Your task to perform on an android device: open app "Roku - Official Remote Control" (install if not already installed) Image 0: 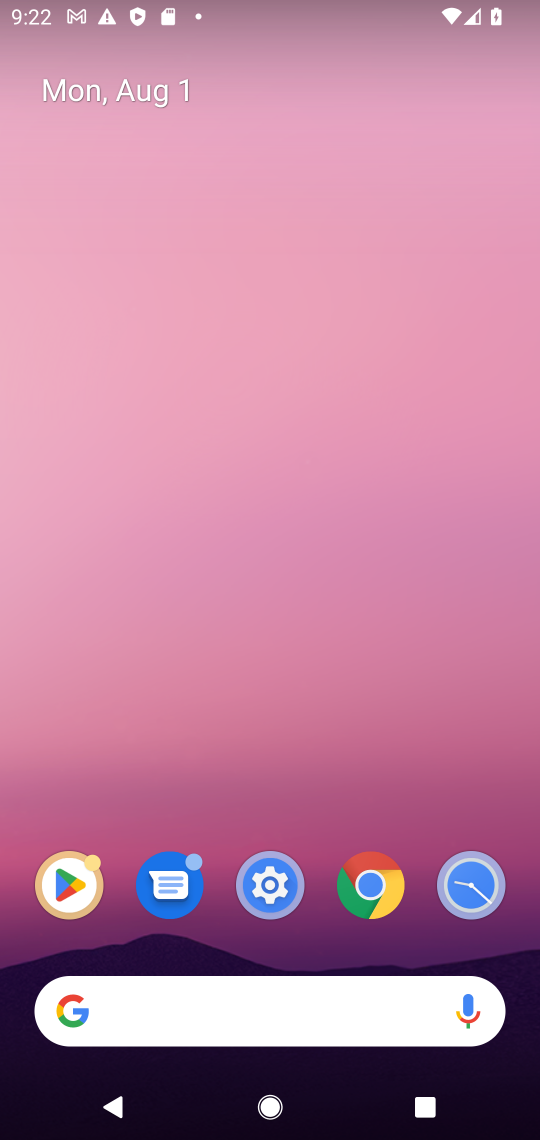
Step 0: drag from (336, 1057) to (316, 301)
Your task to perform on an android device: open app "Roku - Official Remote Control" (install if not already installed) Image 1: 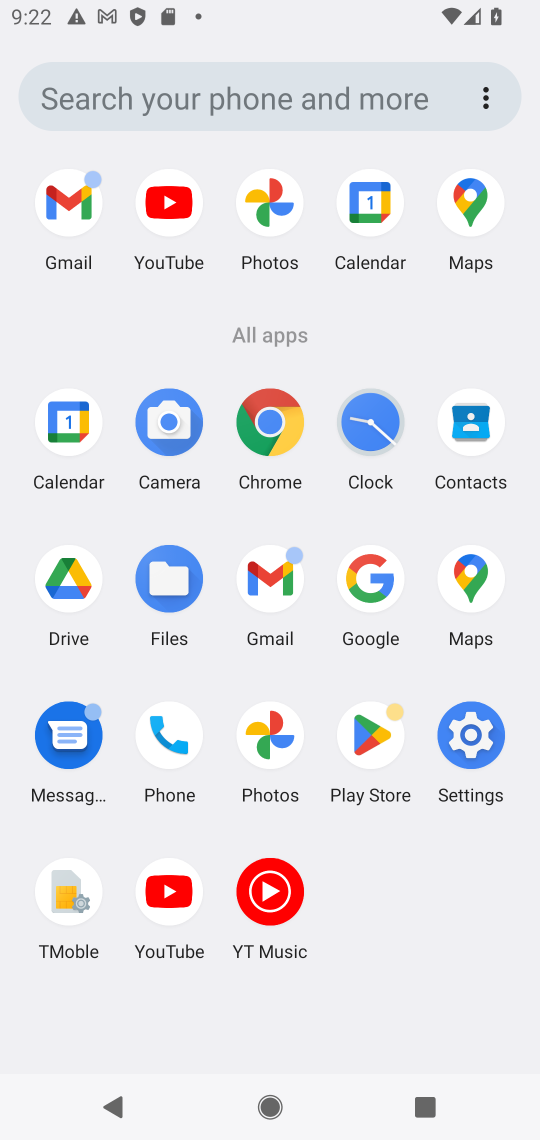
Step 1: click (369, 722)
Your task to perform on an android device: open app "Roku - Official Remote Control" (install if not already installed) Image 2: 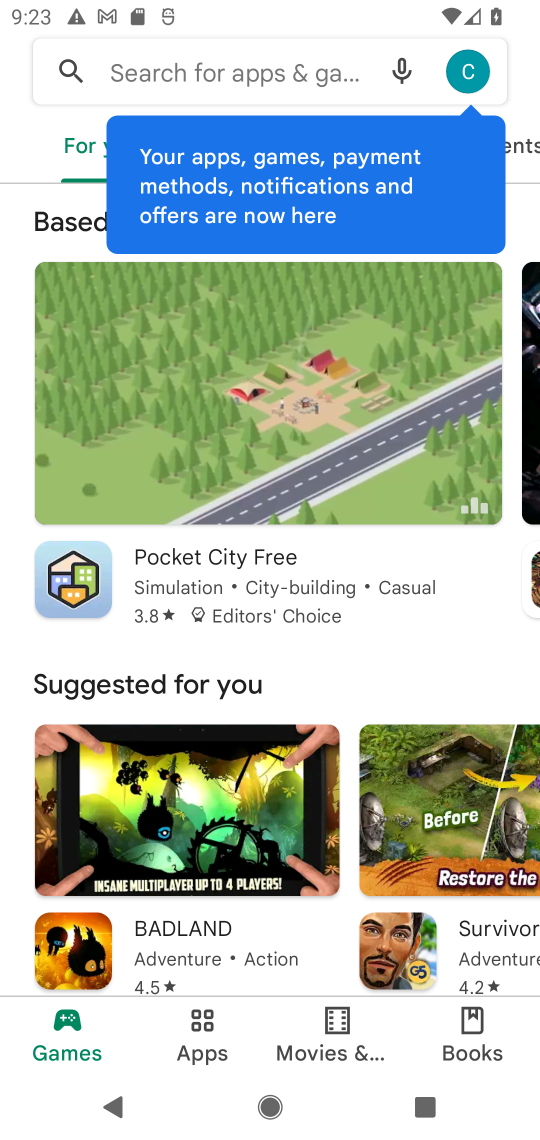
Step 2: click (203, 74)
Your task to perform on an android device: open app "Roku - Official Remote Control" (install if not already installed) Image 3: 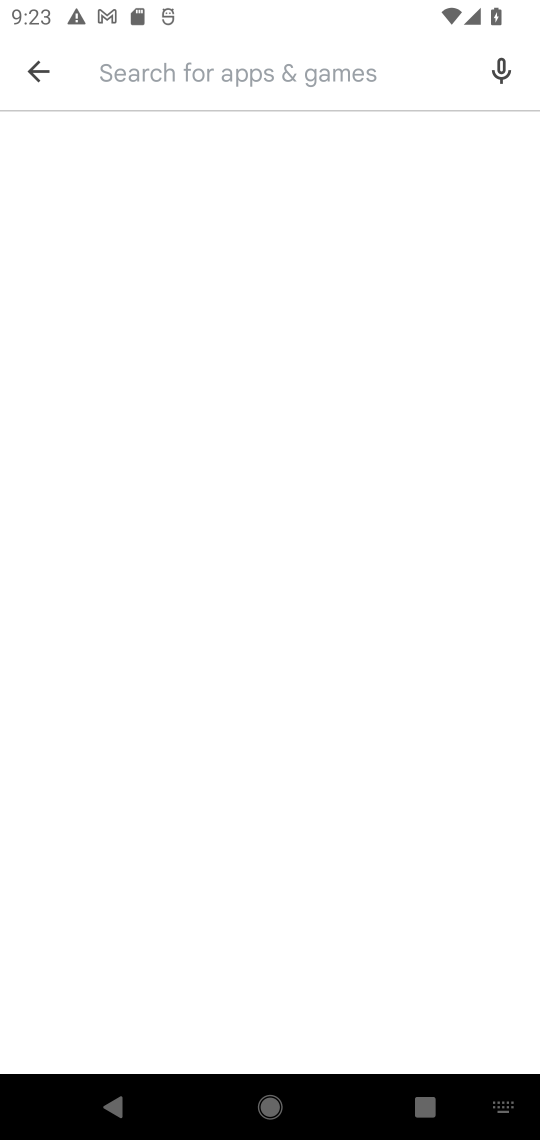
Step 3: type "Roku - Official Remote Control"
Your task to perform on an android device: open app "Roku - Official Remote Control" (install if not already installed) Image 4: 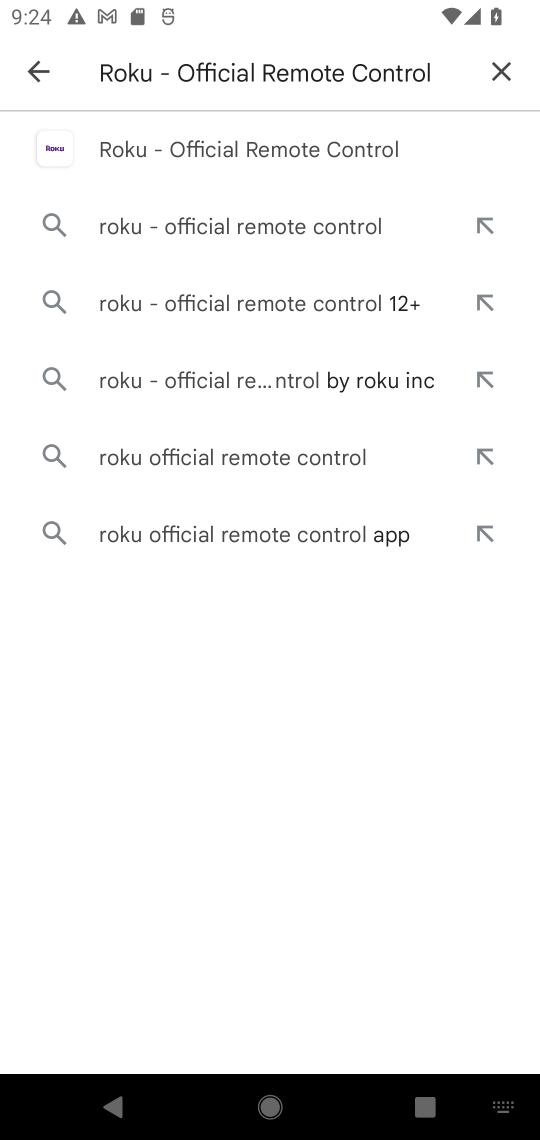
Step 4: click (327, 149)
Your task to perform on an android device: open app "Roku - Official Remote Control" (install if not already installed) Image 5: 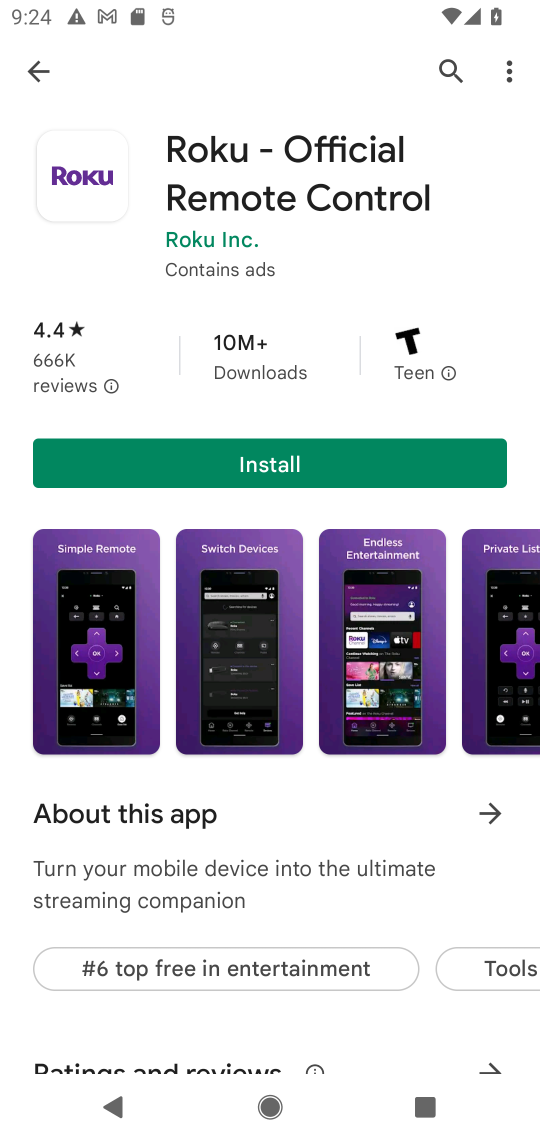
Step 5: click (302, 458)
Your task to perform on an android device: open app "Roku - Official Remote Control" (install if not already installed) Image 6: 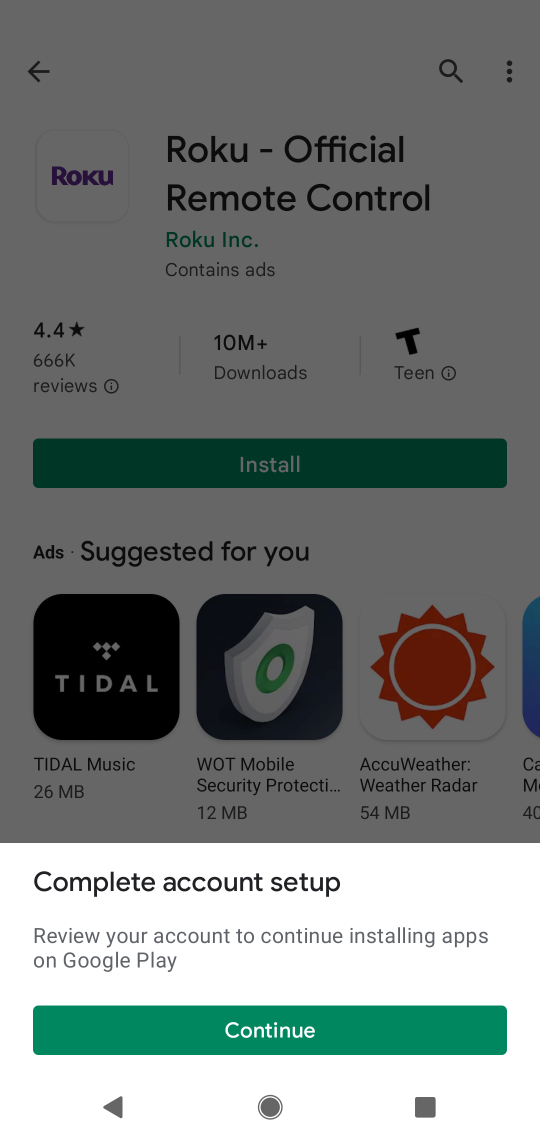
Step 6: click (249, 1023)
Your task to perform on an android device: open app "Roku - Official Remote Control" (install if not already installed) Image 7: 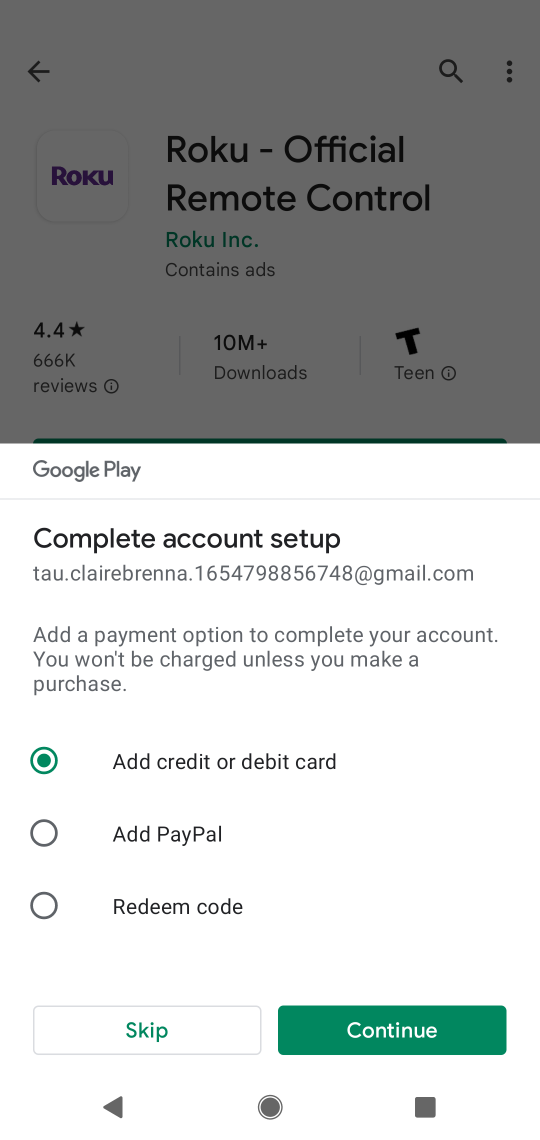
Step 7: click (215, 1021)
Your task to perform on an android device: open app "Roku - Official Remote Control" (install if not already installed) Image 8: 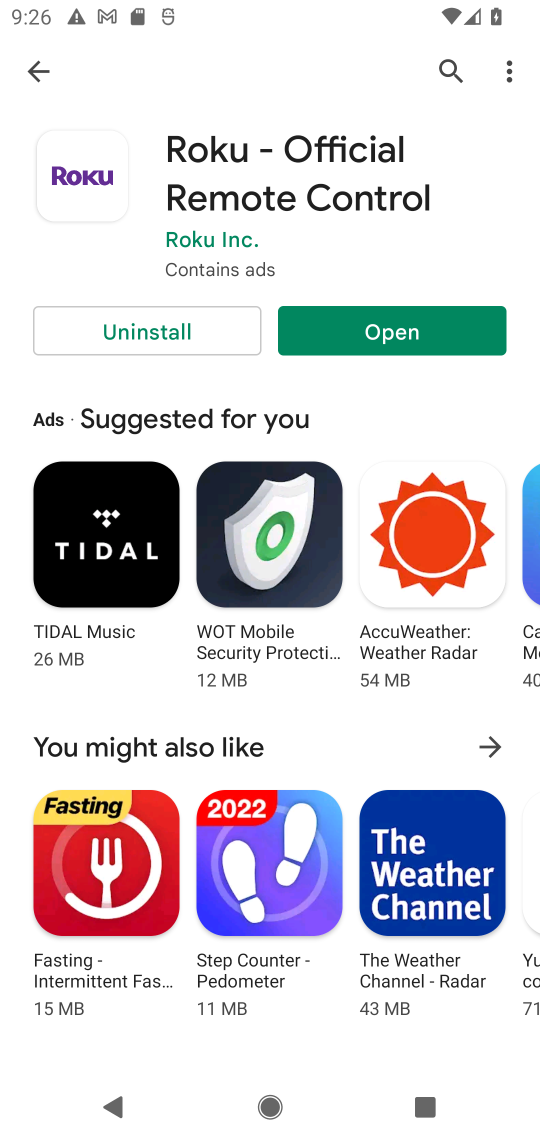
Step 8: click (379, 321)
Your task to perform on an android device: open app "Roku - Official Remote Control" (install if not already installed) Image 9: 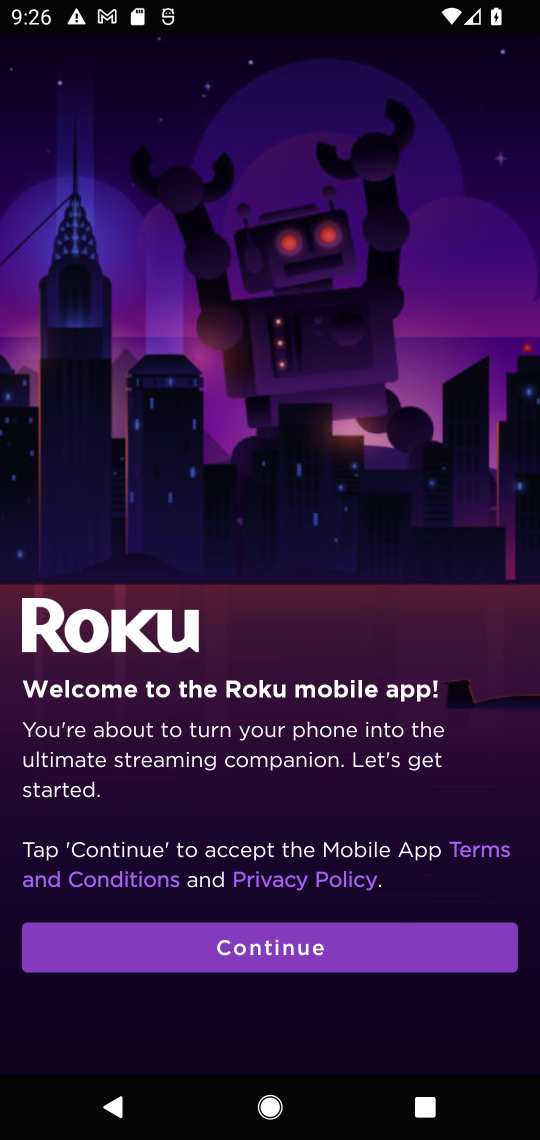
Step 9: task complete